Your task to perform on an android device: set default search engine in the chrome app Image 0: 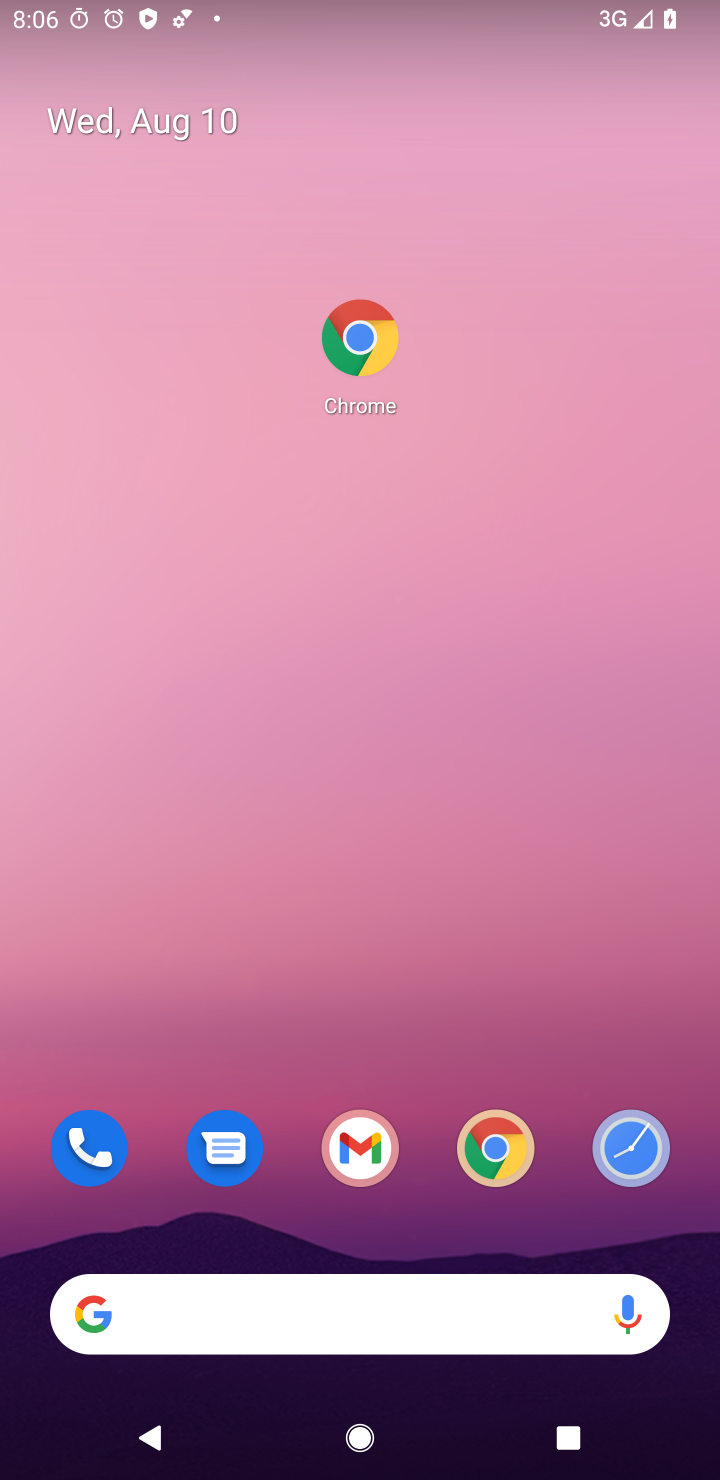
Step 0: click (467, 1158)
Your task to perform on an android device: set default search engine in the chrome app Image 1: 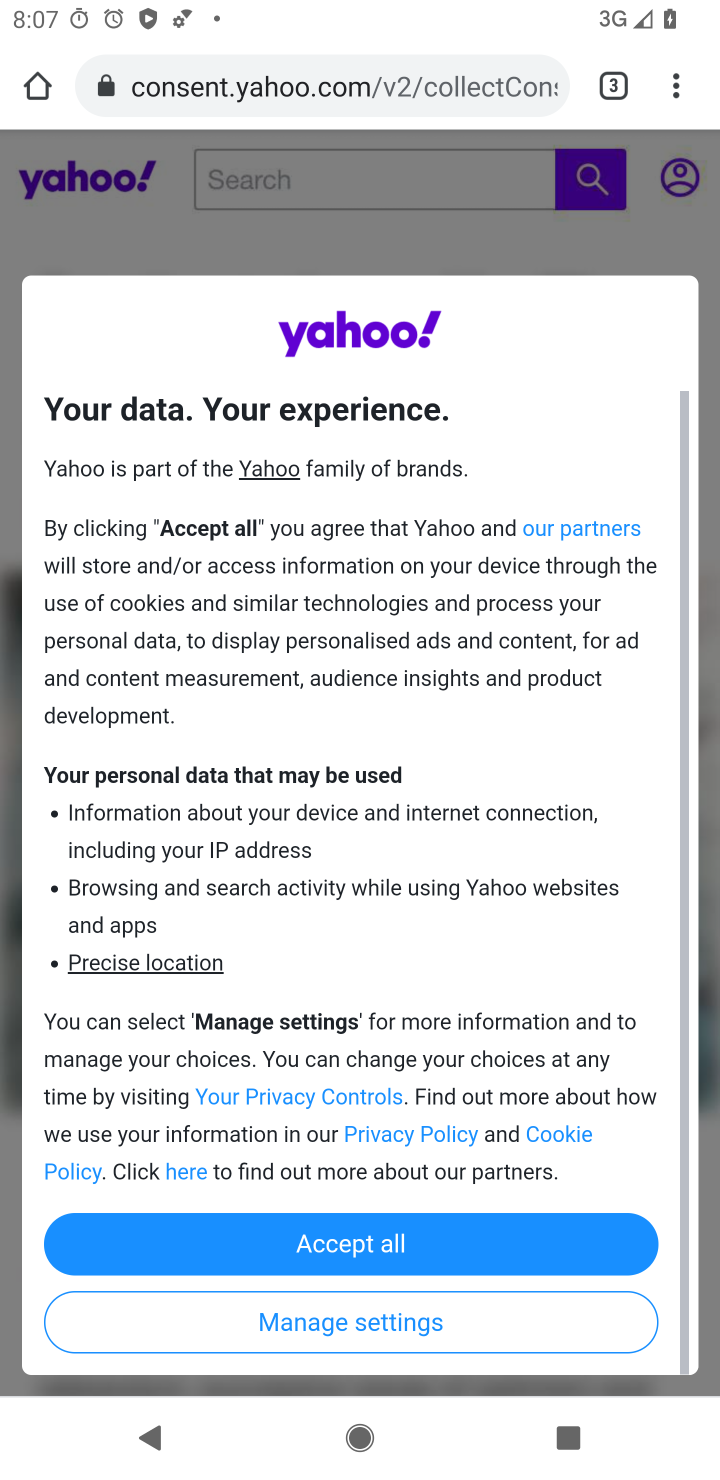
Step 1: click (490, 1230)
Your task to perform on an android device: set default search engine in the chrome app Image 2: 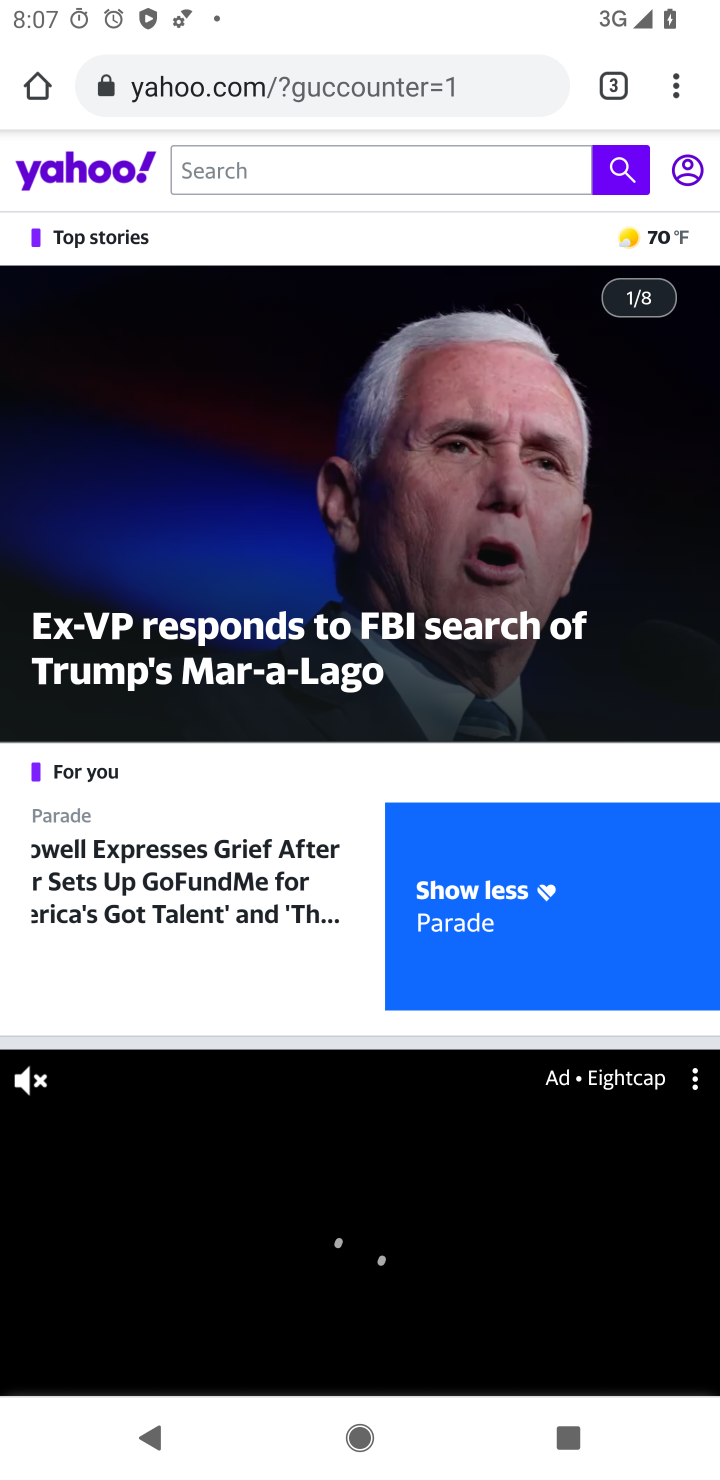
Step 2: click (669, 88)
Your task to perform on an android device: set default search engine in the chrome app Image 3: 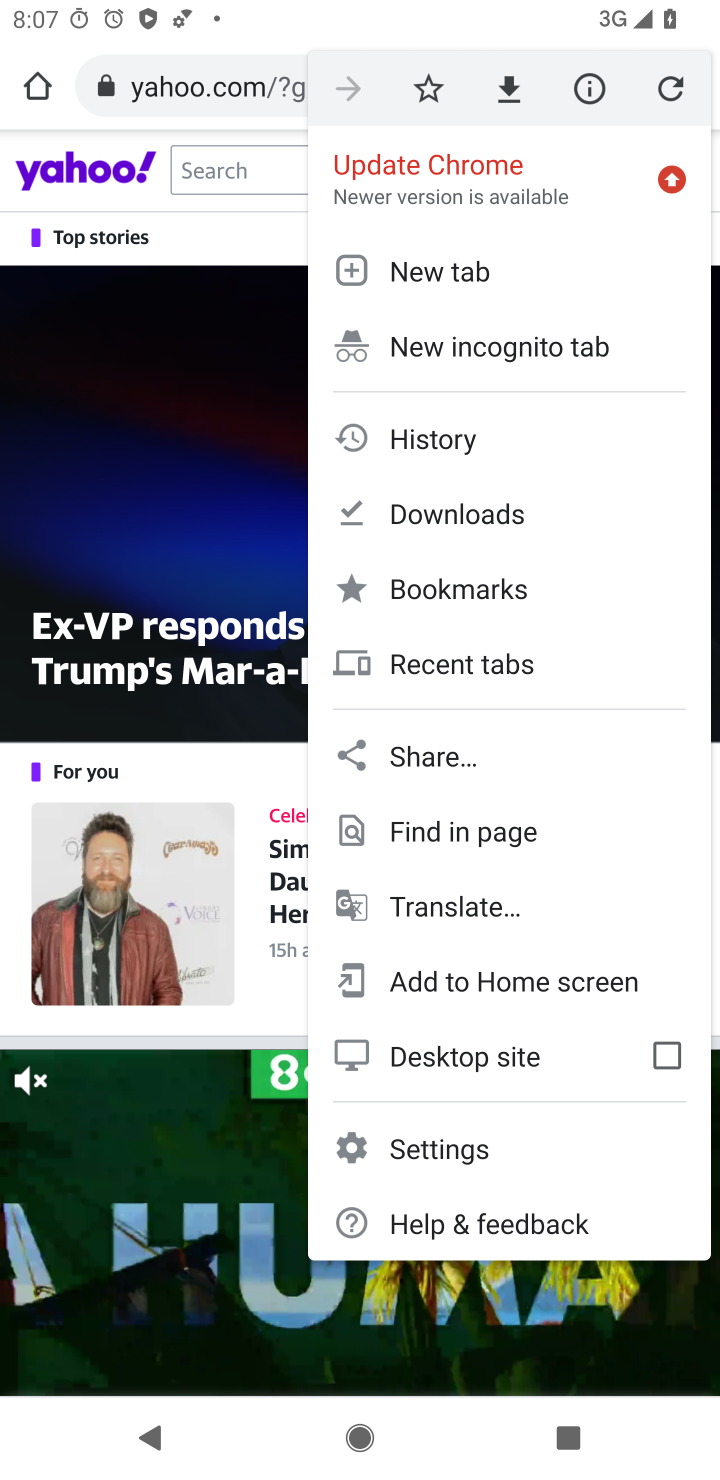
Step 3: click (445, 1144)
Your task to perform on an android device: set default search engine in the chrome app Image 4: 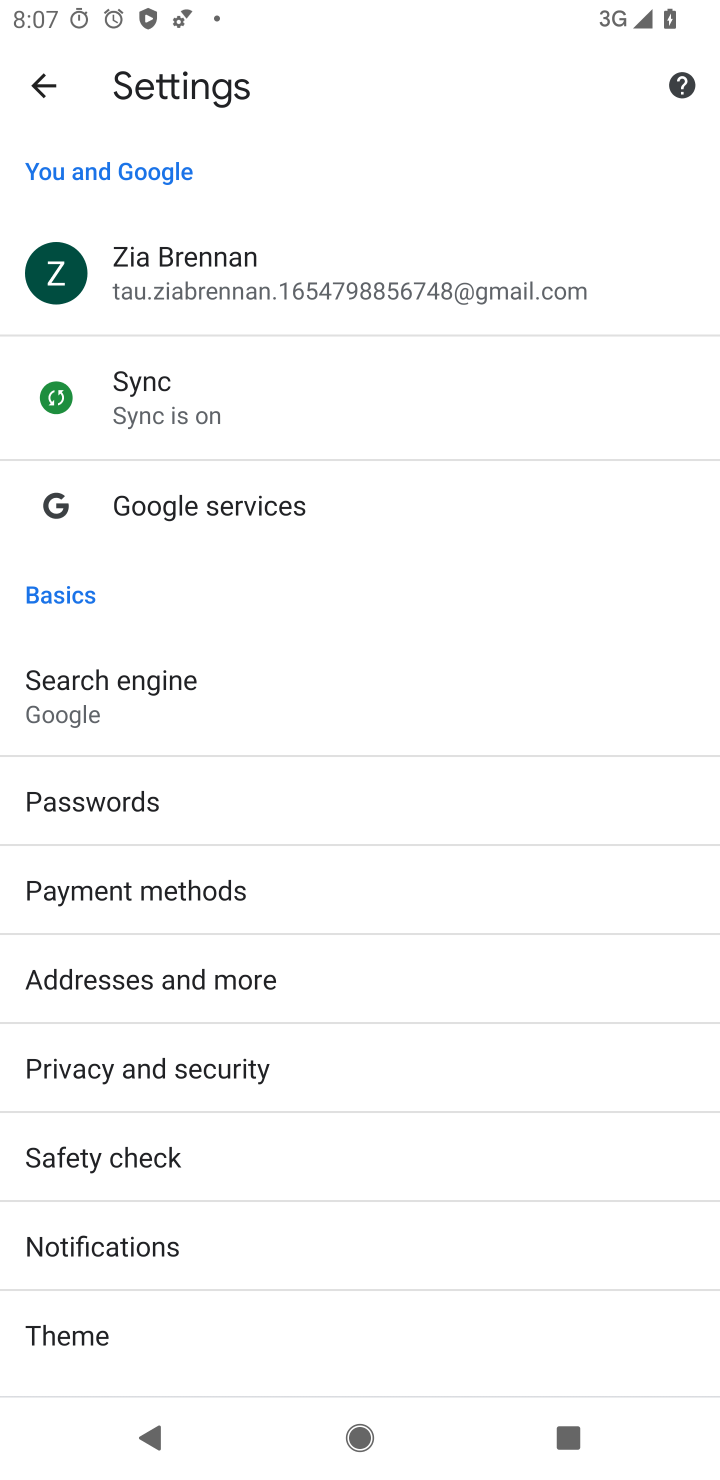
Step 4: click (177, 717)
Your task to perform on an android device: set default search engine in the chrome app Image 5: 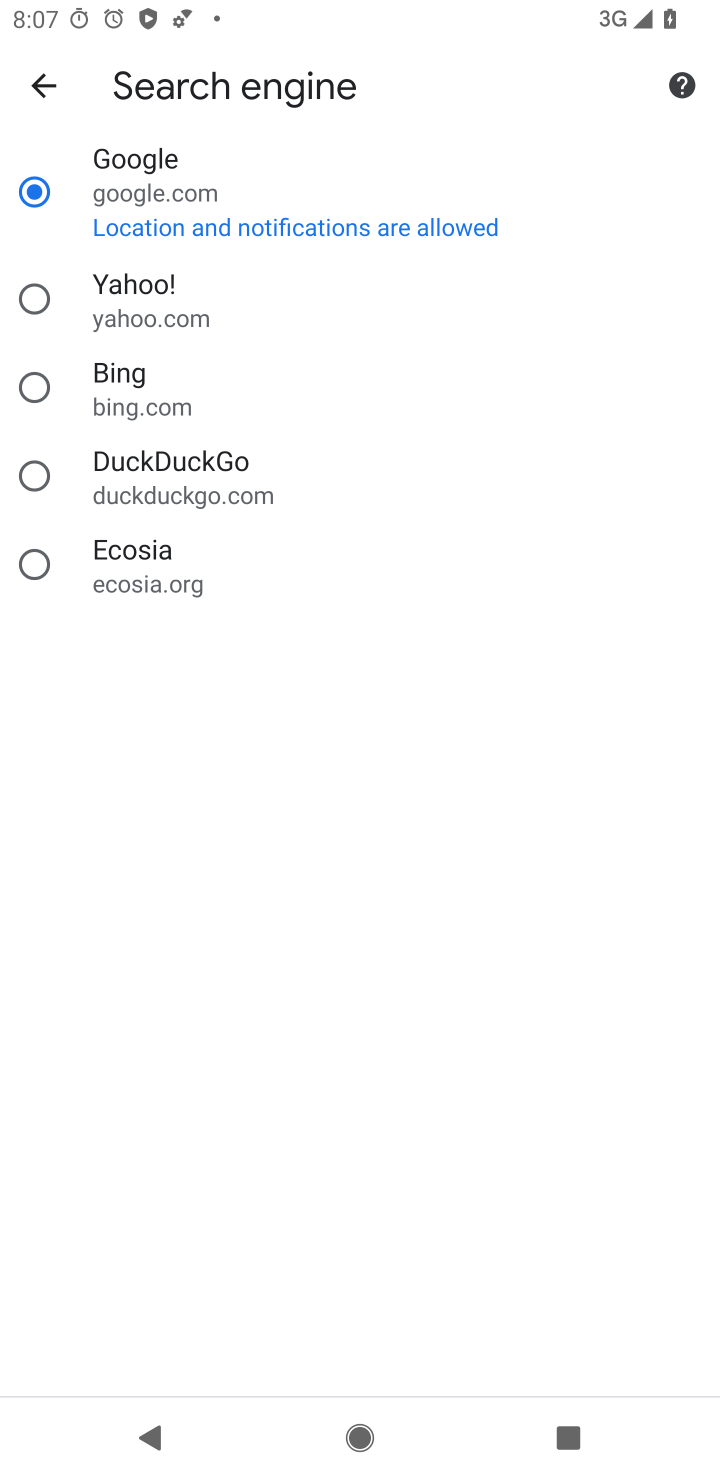
Step 5: click (9, 193)
Your task to perform on an android device: set default search engine in the chrome app Image 6: 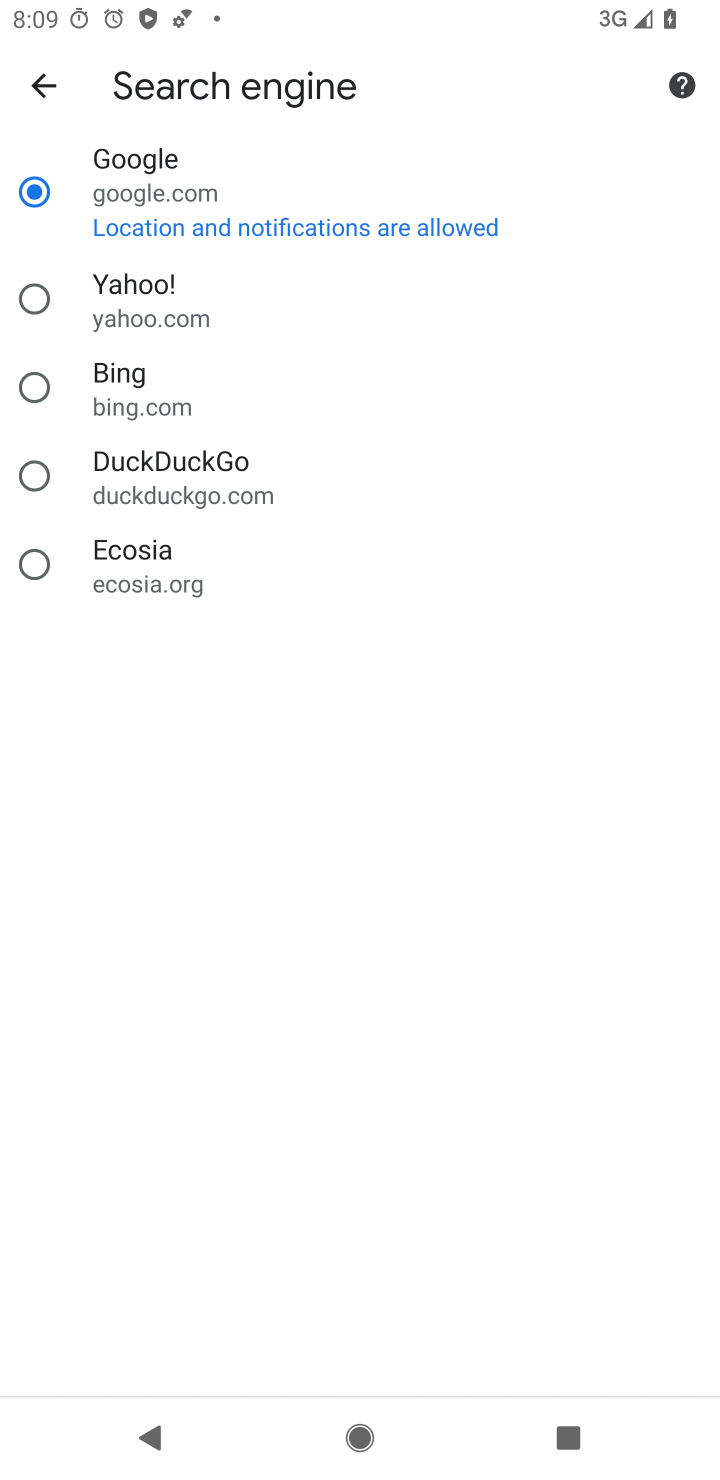
Step 6: task complete